Your task to perform on an android device: check the backup settings in the google photos Image 0: 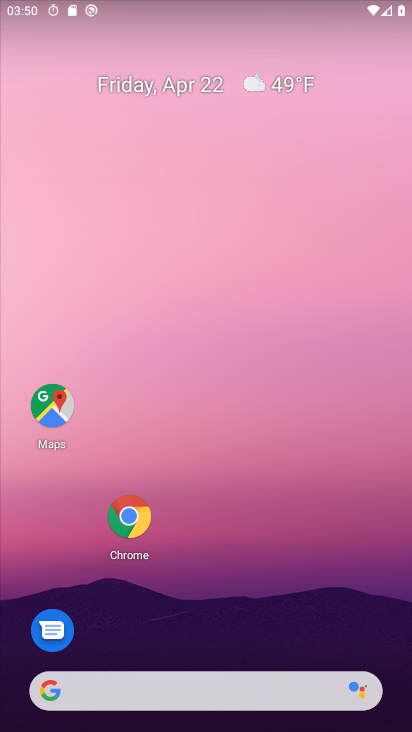
Step 0: click (380, 235)
Your task to perform on an android device: check the backup settings in the google photos Image 1: 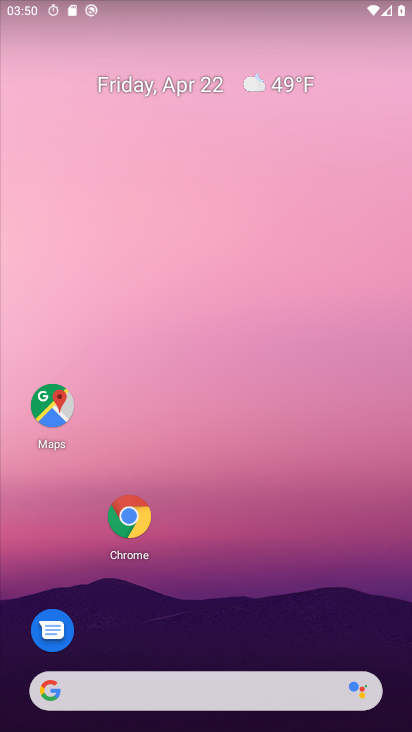
Step 1: drag from (361, 361) to (367, 246)
Your task to perform on an android device: check the backup settings in the google photos Image 2: 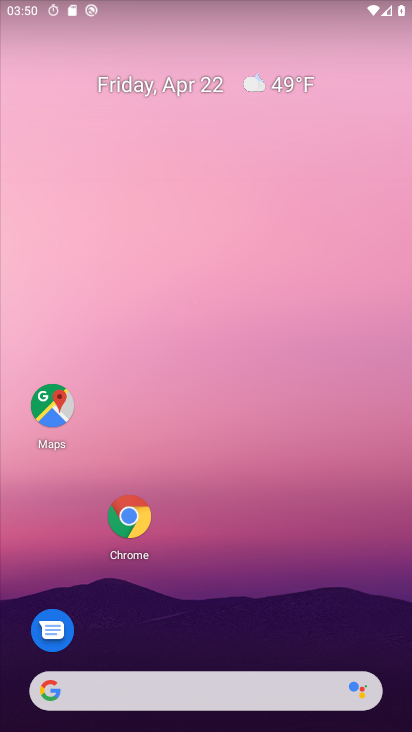
Step 2: drag from (328, 161) to (325, 112)
Your task to perform on an android device: check the backup settings in the google photos Image 3: 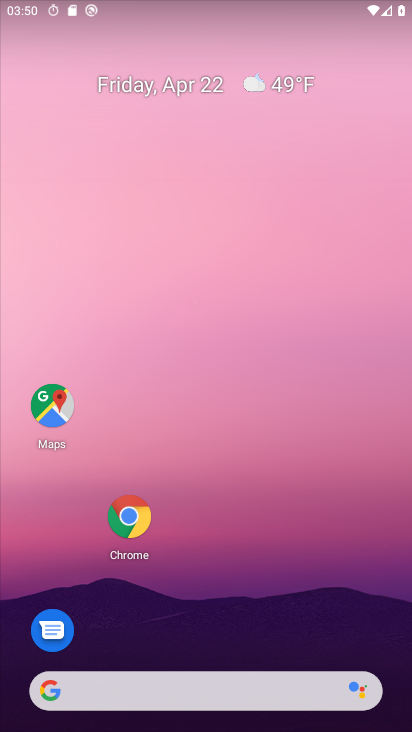
Step 3: drag from (376, 637) to (356, 99)
Your task to perform on an android device: check the backup settings in the google photos Image 4: 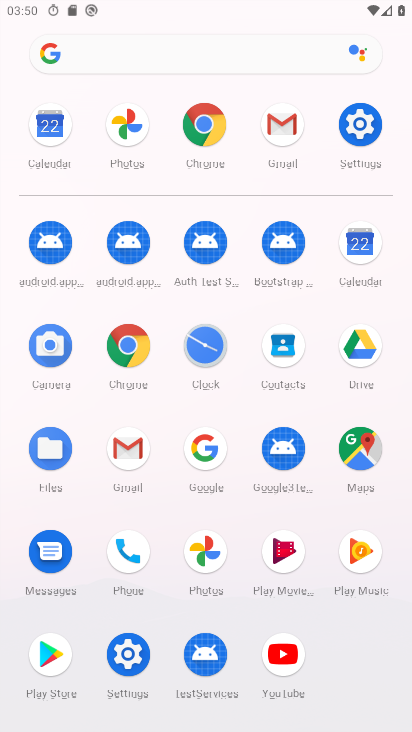
Step 4: click (208, 536)
Your task to perform on an android device: check the backup settings in the google photos Image 5: 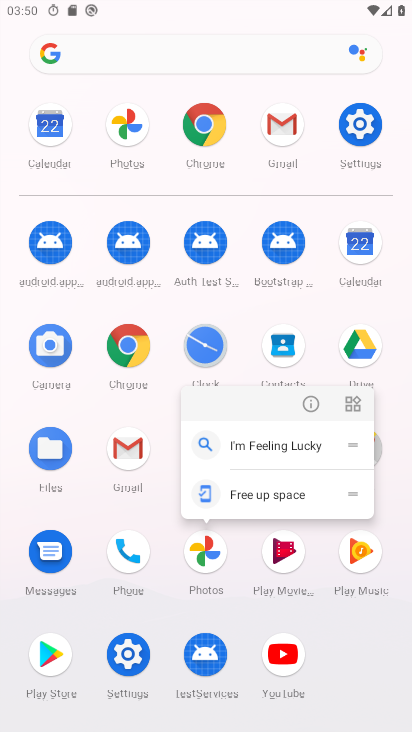
Step 5: click (201, 552)
Your task to perform on an android device: check the backup settings in the google photos Image 6: 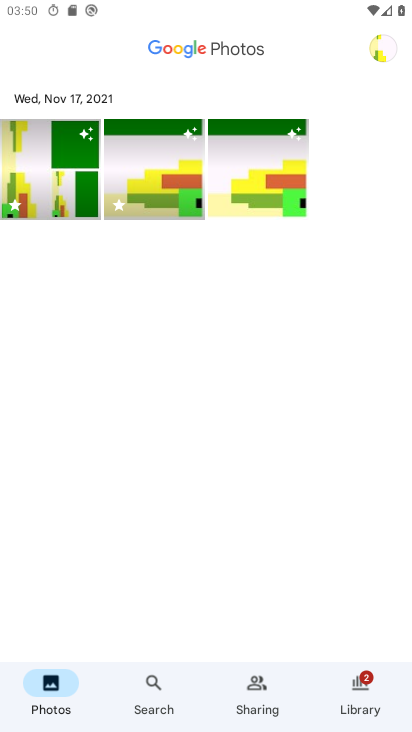
Step 6: click (378, 46)
Your task to perform on an android device: check the backup settings in the google photos Image 7: 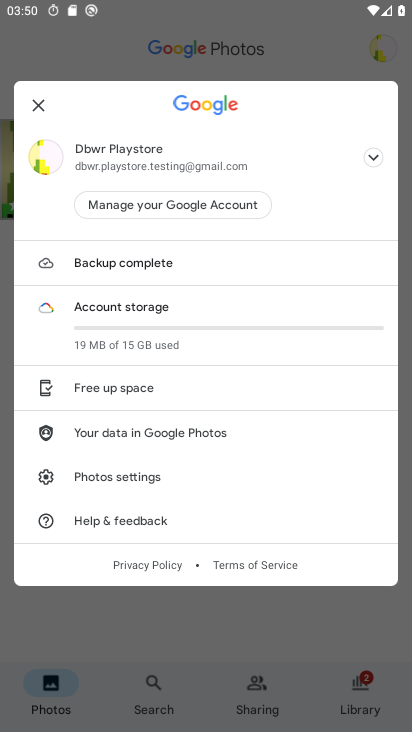
Step 7: click (93, 258)
Your task to perform on an android device: check the backup settings in the google photos Image 8: 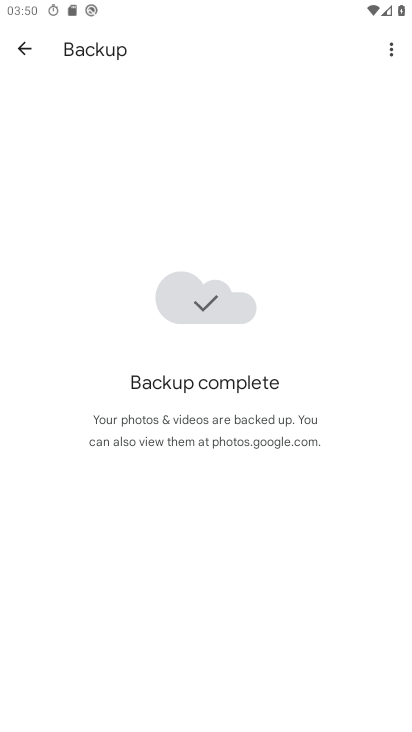
Step 8: task complete